Your task to perform on an android device: Search for pizza restaurants on Maps Image 0: 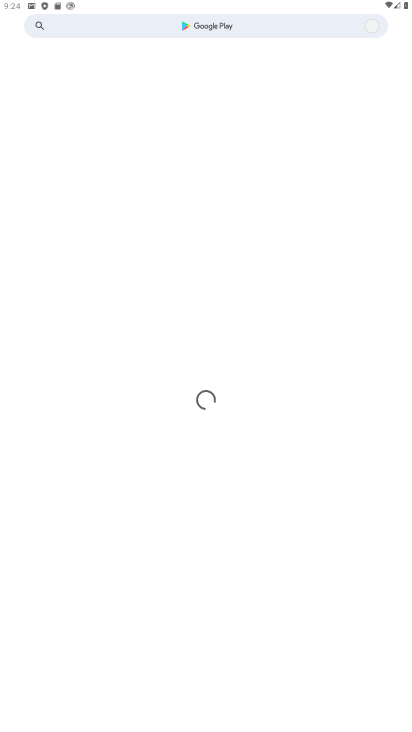
Step 0: press home button
Your task to perform on an android device: Search for pizza restaurants on Maps Image 1: 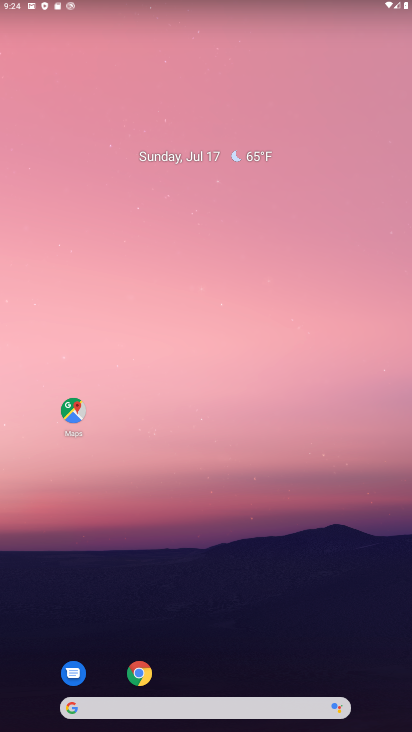
Step 1: click (73, 410)
Your task to perform on an android device: Search for pizza restaurants on Maps Image 2: 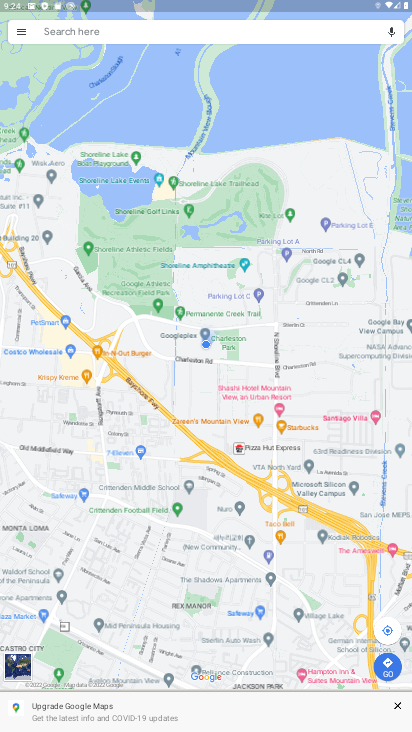
Step 2: click (83, 33)
Your task to perform on an android device: Search for pizza restaurants on Maps Image 3: 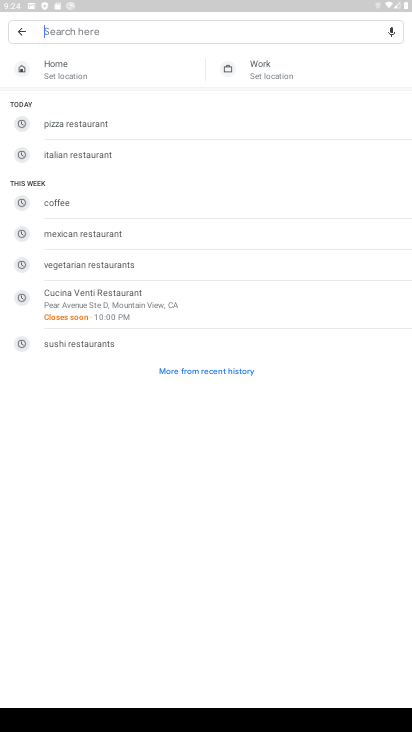
Step 3: type "pizza restaurants"
Your task to perform on an android device: Search for pizza restaurants on Maps Image 4: 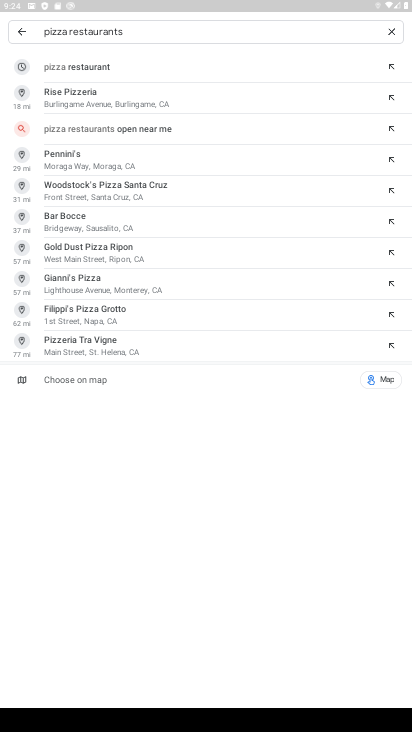
Step 4: click (85, 61)
Your task to perform on an android device: Search for pizza restaurants on Maps Image 5: 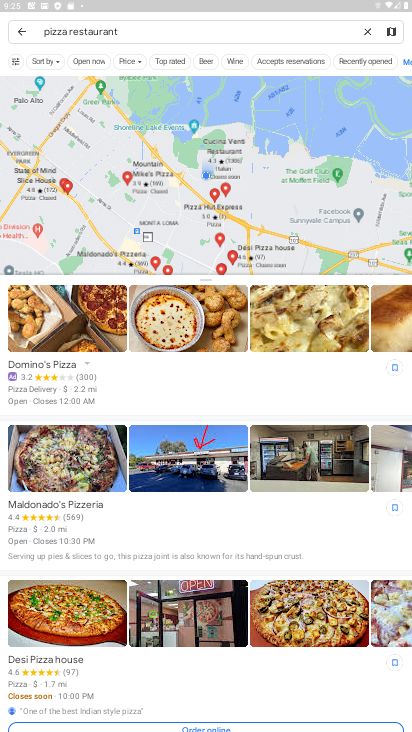
Step 5: task complete